Your task to perform on an android device: Open Maps and search for coffee Image 0: 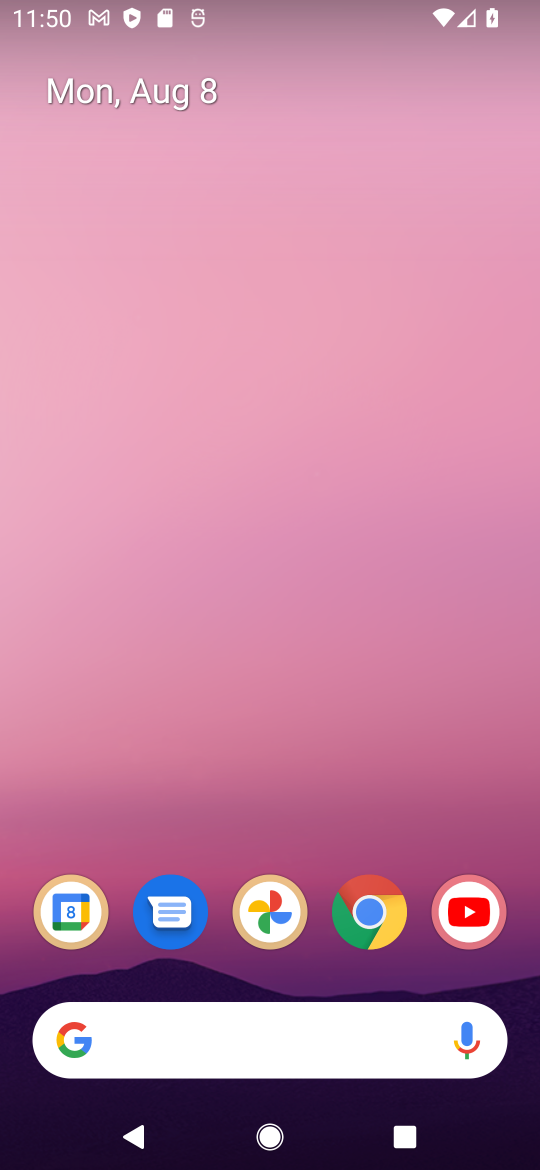
Step 0: drag from (221, 896) to (382, 4)
Your task to perform on an android device: Open Maps and search for coffee Image 1: 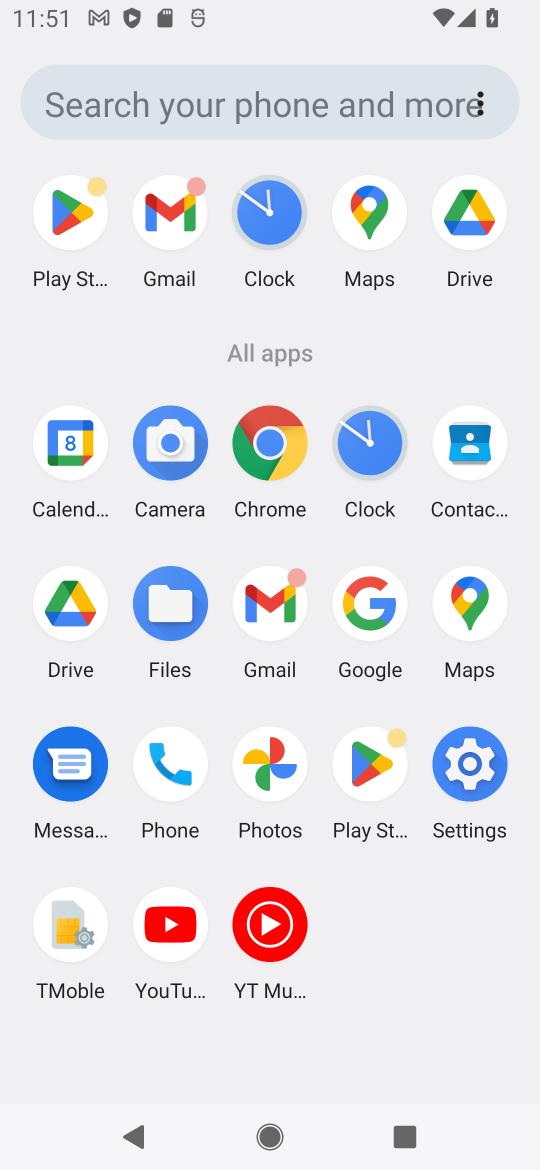
Step 1: click (378, 198)
Your task to perform on an android device: Open Maps and search for coffee Image 2: 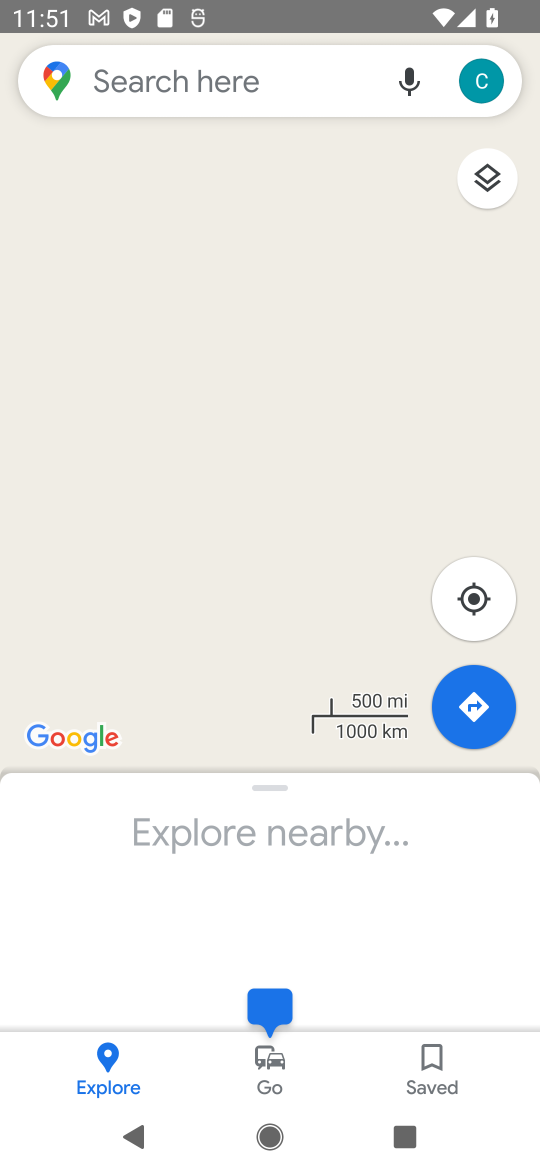
Step 2: click (234, 87)
Your task to perform on an android device: Open Maps and search for coffee Image 3: 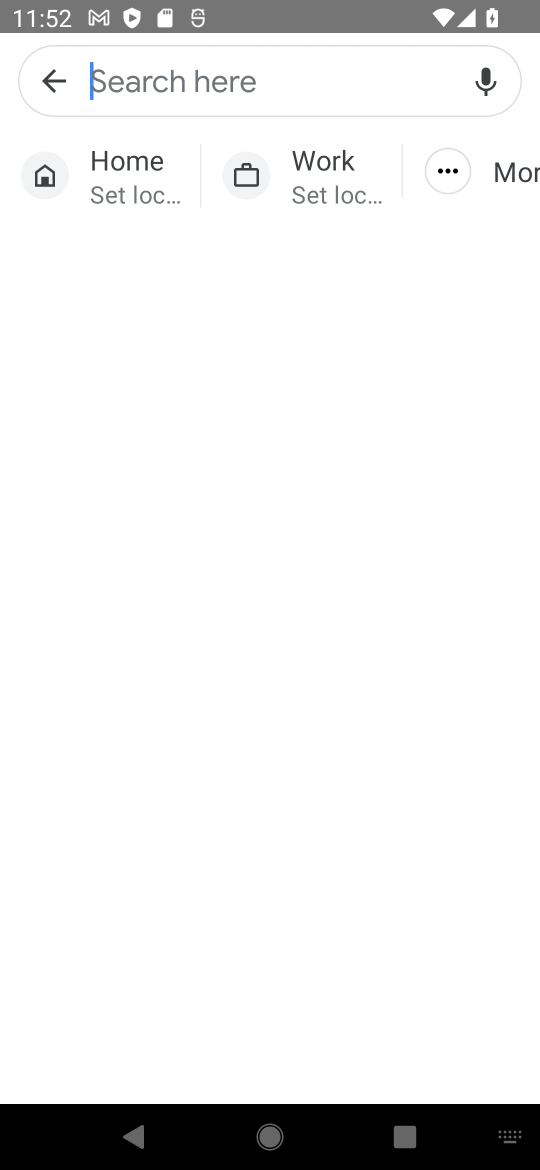
Step 3: click (155, 446)
Your task to perform on an android device: Open Maps and search for coffee Image 4: 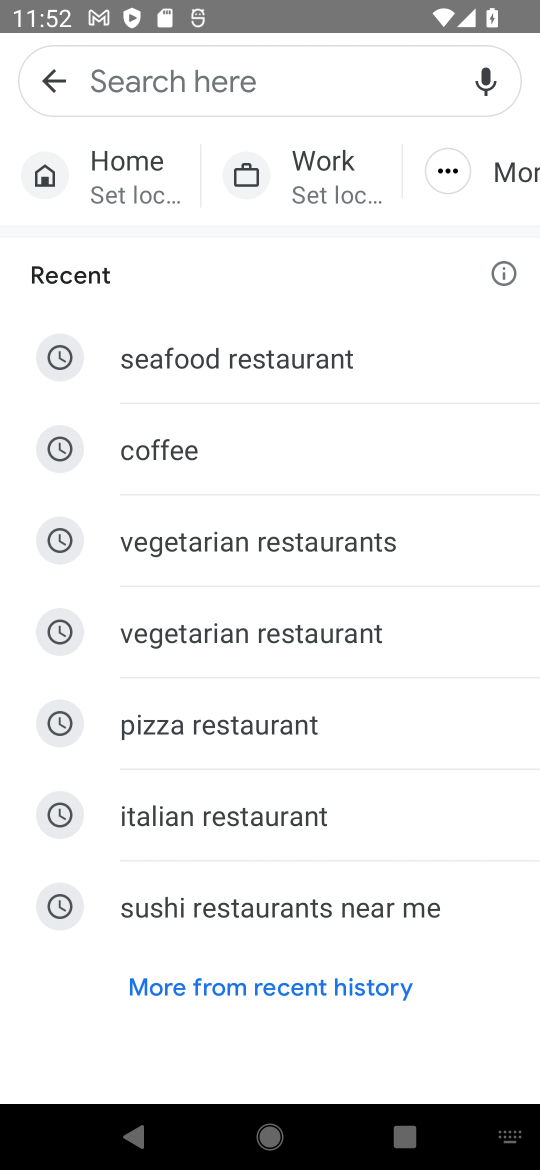
Step 4: click (157, 76)
Your task to perform on an android device: Open Maps and search for coffee Image 5: 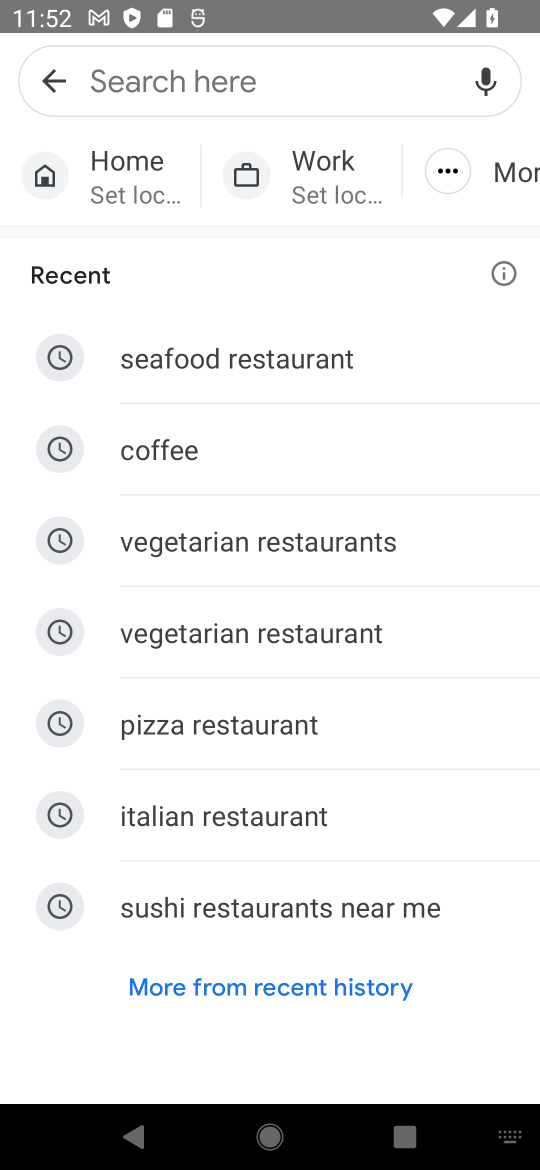
Step 5: type "coffee"
Your task to perform on an android device: Open Maps and search for coffee Image 6: 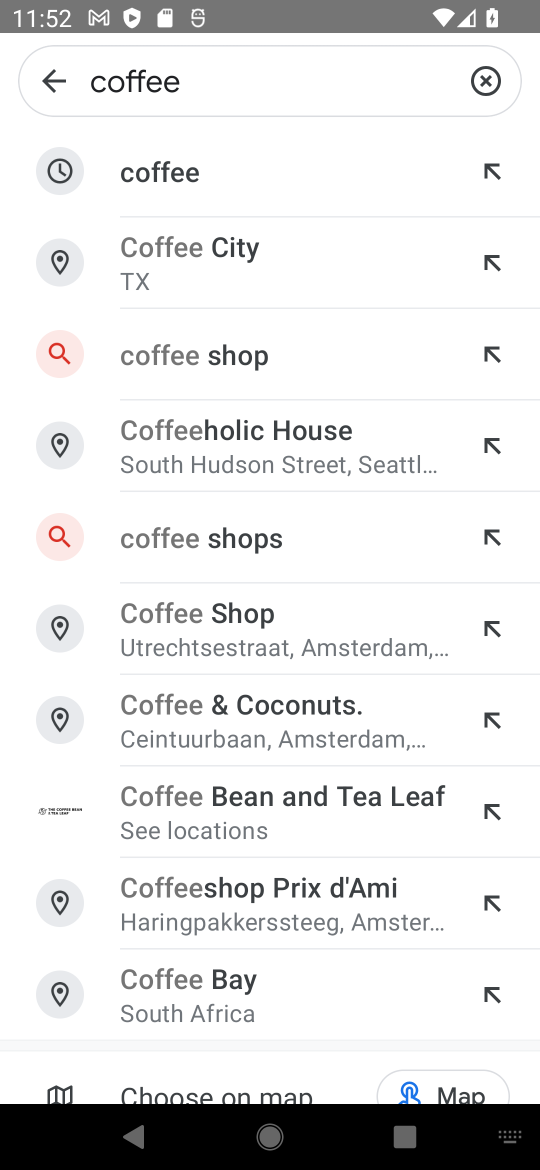
Step 6: click (230, 180)
Your task to perform on an android device: Open Maps and search for coffee Image 7: 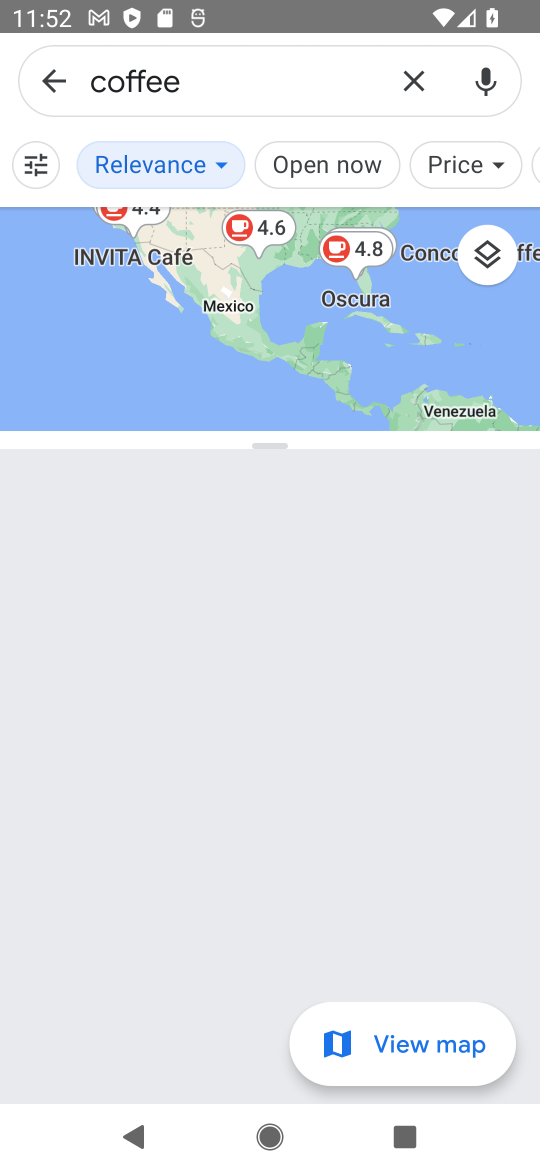
Step 7: task complete